Your task to perform on an android device: toggle sleep mode Image 0: 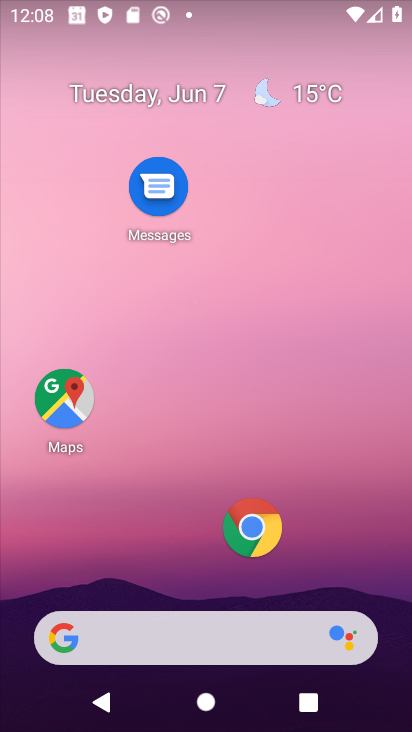
Step 0: drag from (301, 576) to (409, 496)
Your task to perform on an android device: toggle sleep mode Image 1: 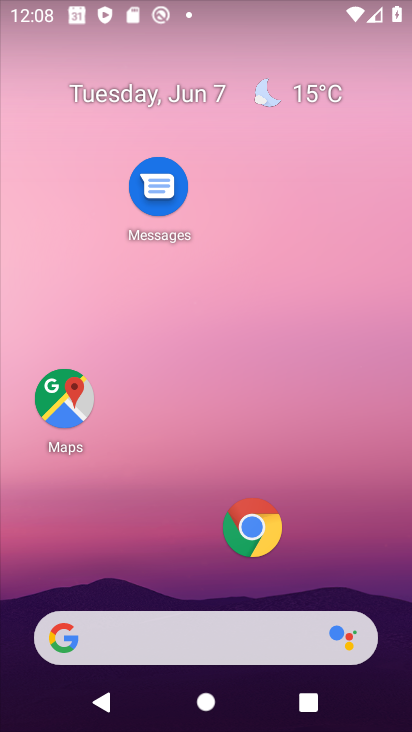
Step 1: drag from (196, 402) to (199, 87)
Your task to perform on an android device: toggle sleep mode Image 2: 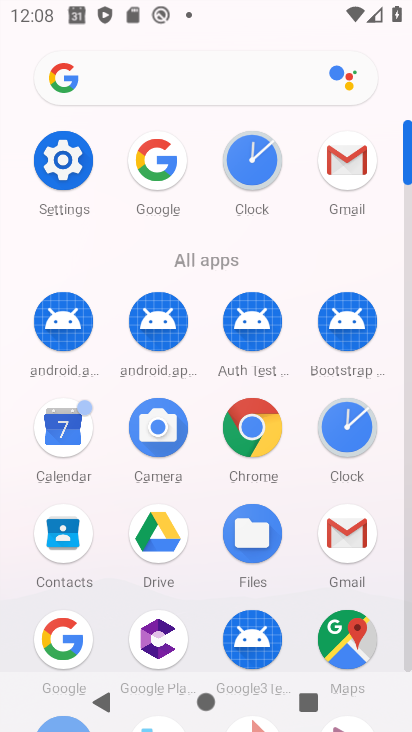
Step 2: drag from (147, 630) to (190, 150)
Your task to perform on an android device: toggle sleep mode Image 3: 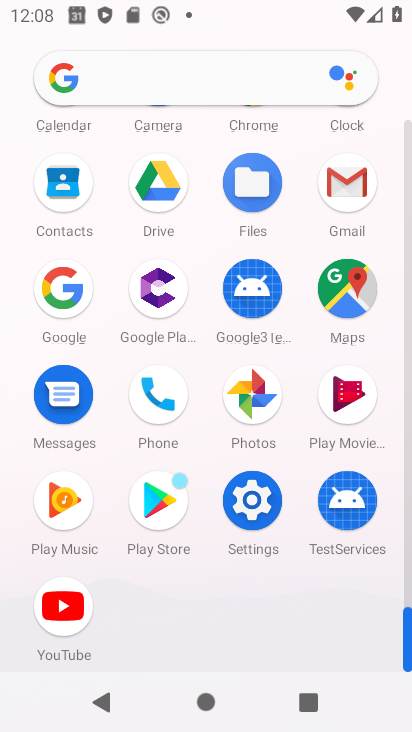
Step 3: click (252, 497)
Your task to perform on an android device: toggle sleep mode Image 4: 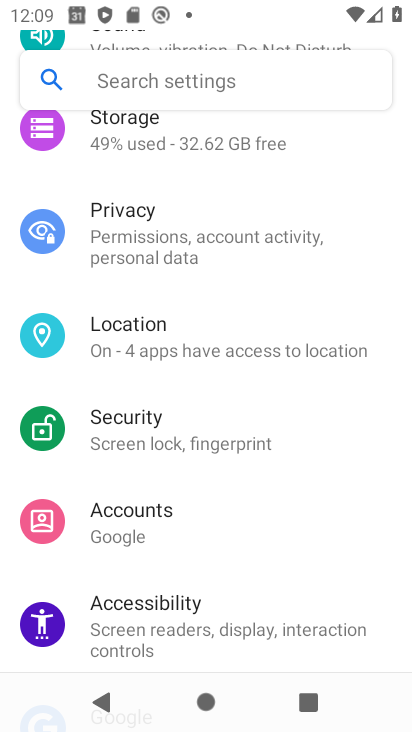
Step 4: drag from (204, 127) to (253, 608)
Your task to perform on an android device: toggle sleep mode Image 5: 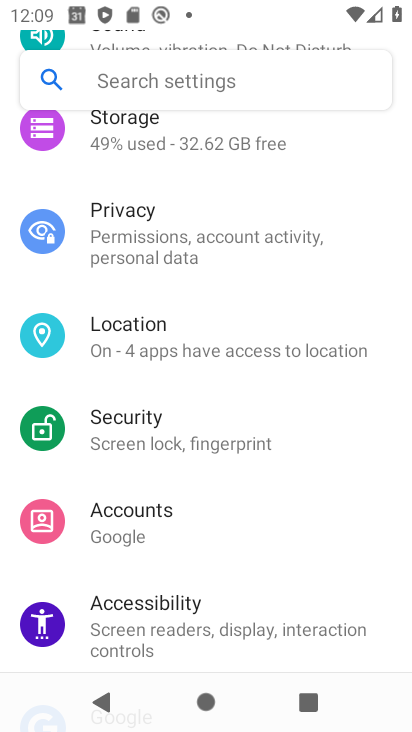
Step 5: drag from (189, 124) to (227, 595)
Your task to perform on an android device: toggle sleep mode Image 6: 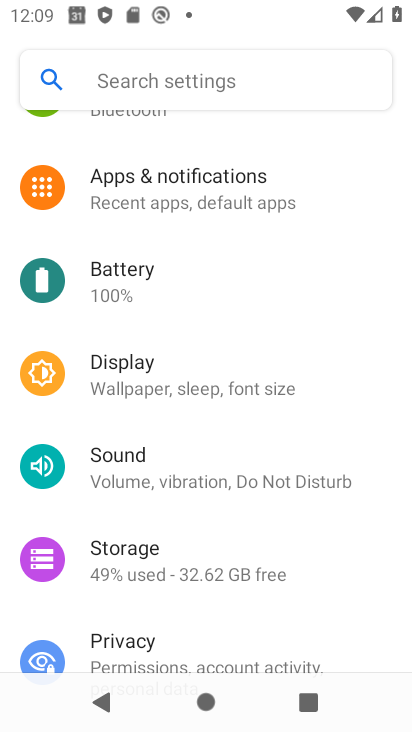
Step 6: drag from (139, 140) to (218, 575)
Your task to perform on an android device: toggle sleep mode Image 7: 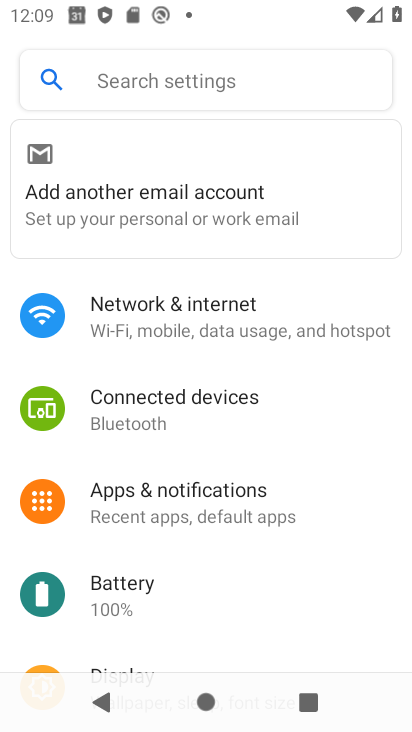
Step 7: drag from (199, 659) to (205, 232)
Your task to perform on an android device: toggle sleep mode Image 8: 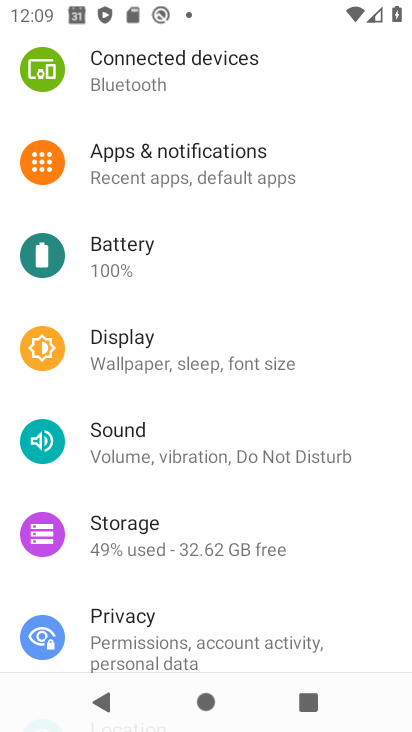
Step 8: click (211, 370)
Your task to perform on an android device: toggle sleep mode Image 9: 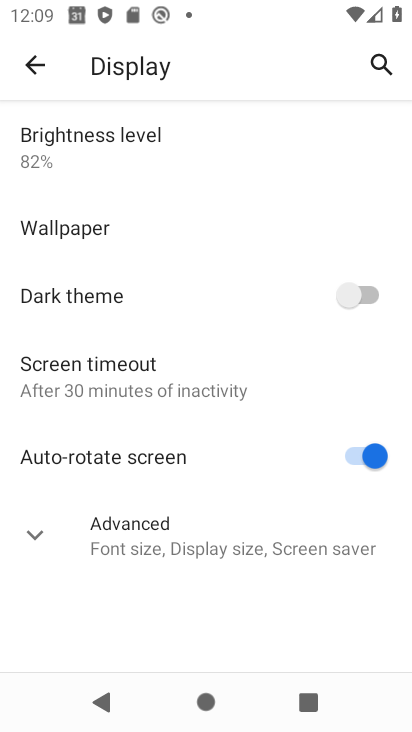
Step 9: click (96, 541)
Your task to perform on an android device: toggle sleep mode Image 10: 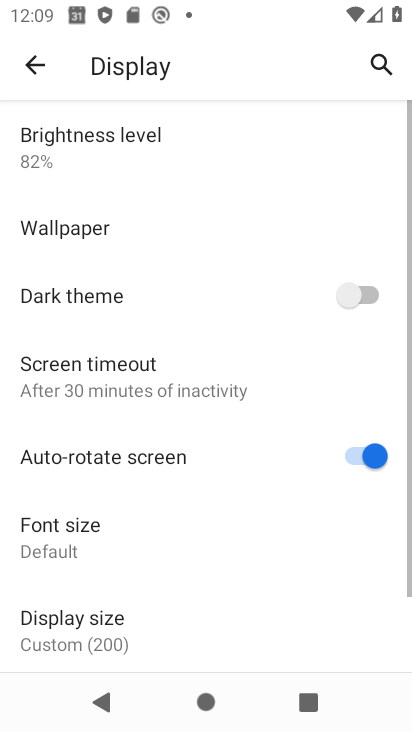
Step 10: click (117, 388)
Your task to perform on an android device: toggle sleep mode Image 11: 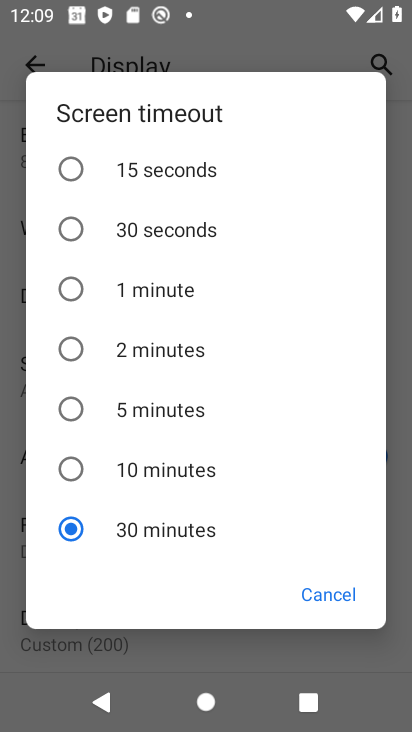
Step 11: click (158, 412)
Your task to perform on an android device: toggle sleep mode Image 12: 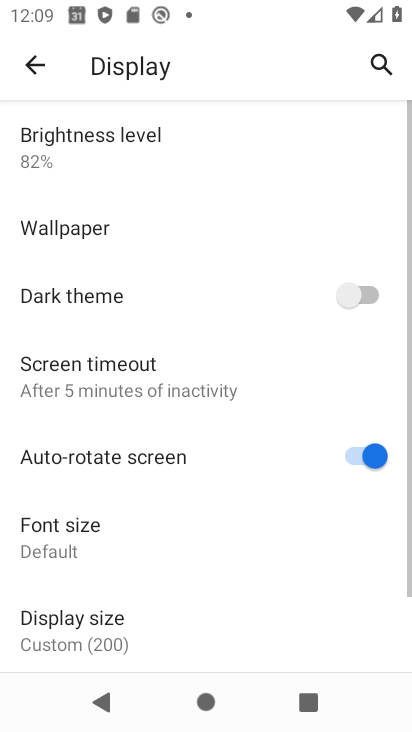
Step 12: task complete